Your task to perform on an android device: Add "razer deathadder" to the cart on bestbuy.com, then select checkout. Image 0: 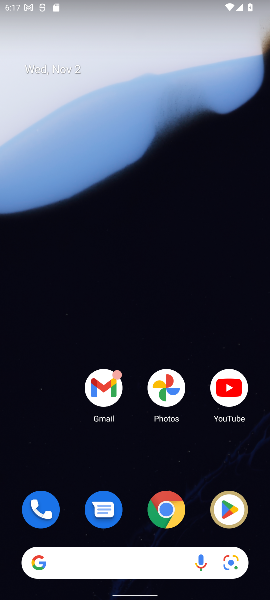
Step 0: click (164, 253)
Your task to perform on an android device: Add "razer deathadder" to the cart on bestbuy.com, then select checkout. Image 1: 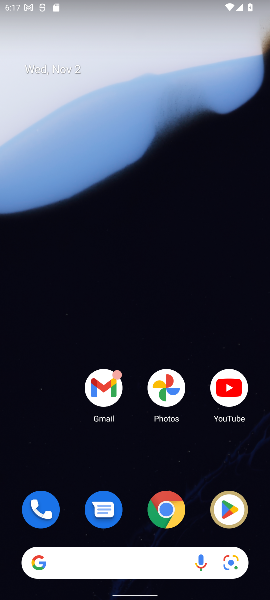
Step 1: click (123, 550)
Your task to perform on an android device: Add "razer deathadder" to the cart on bestbuy.com, then select checkout. Image 2: 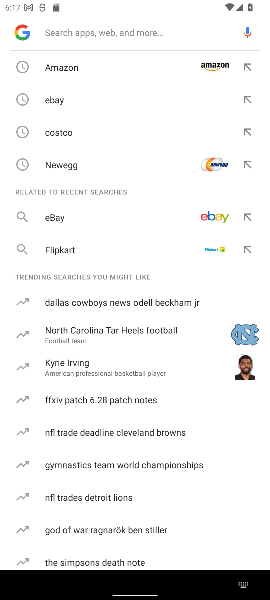
Step 2: type "bestbuy"
Your task to perform on an android device: Add "razer deathadder" to the cart on bestbuy.com, then select checkout. Image 3: 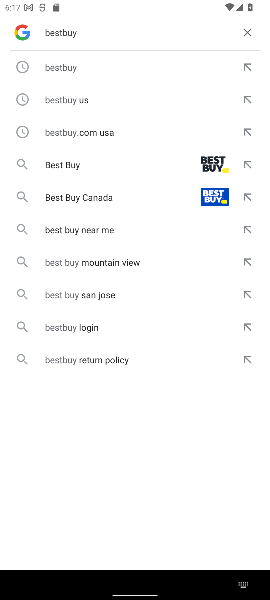
Step 3: click (63, 68)
Your task to perform on an android device: Add "razer deathadder" to the cart on bestbuy.com, then select checkout. Image 4: 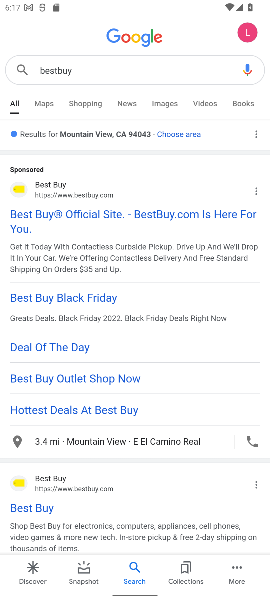
Step 4: click (30, 505)
Your task to perform on an android device: Add "razer deathadder" to the cart on bestbuy.com, then select checkout. Image 5: 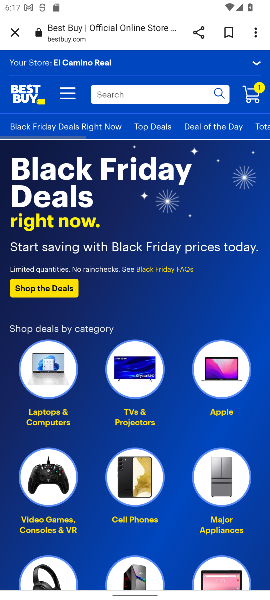
Step 5: click (113, 93)
Your task to perform on an android device: Add "razer deathadder" to the cart on bestbuy.com, then select checkout. Image 6: 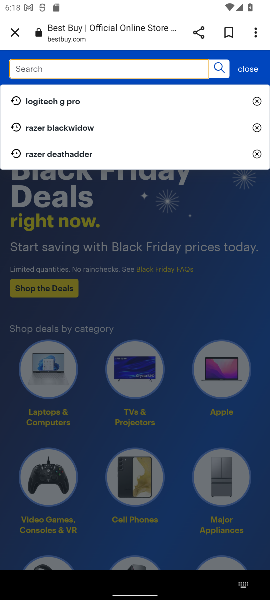
Step 6: type "razer deathadder"
Your task to perform on an android device: Add "razer deathadder" to the cart on bestbuy.com, then select checkout. Image 7: 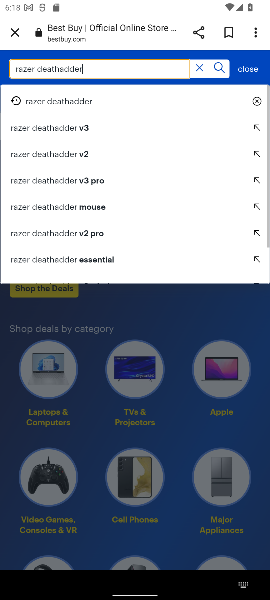
Step 7: click (220, 66)
Your task to perform on an android device: Add "razer deathadder" to the cart on bestbuy.com, then select checkout. Image 8: 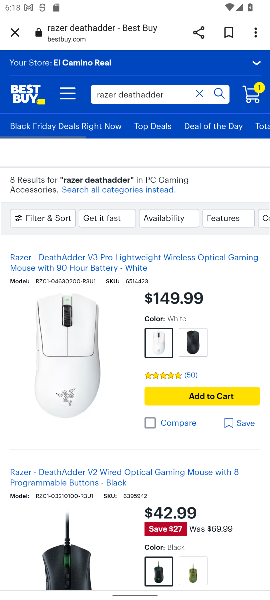
Step 8: drag from (211, 456) to (220, 281)
Your task to perform on an android device: Add "razer deathadder" to the cart on bestbuy.com, then select checkout. Image 9: 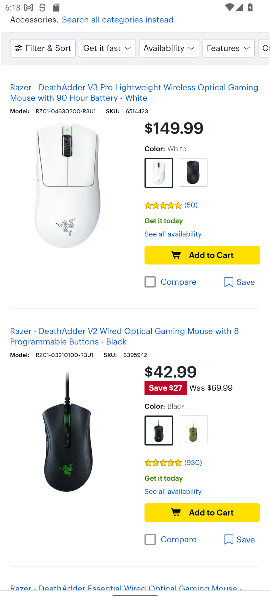
Step 9: click (204, 511)
Your task to perform on an android device: Add "razer deathadder" to the cart on bestbuy.com, then select checkout. Image 10: 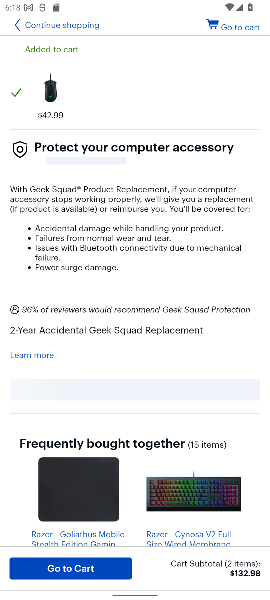
Step 10: click (70, 572)
Your task to perform on an android device: Add "razer deathadder" to the cart on bestbuy.com, then select checkout. Image 11: 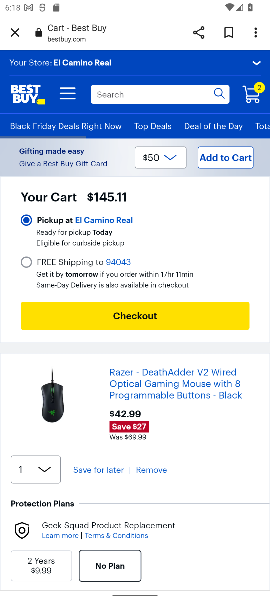
Step 11: click (120, 313)
Your task to perform on an android device: Add "razer deathadder" to the cart on bestbuy.com, then select checkout. Image 12: 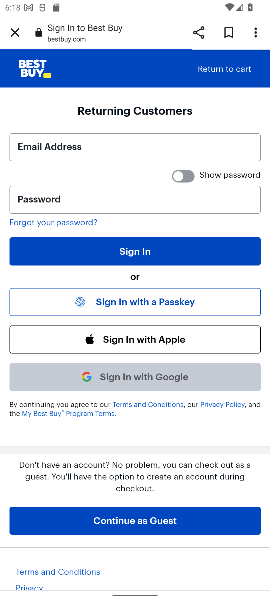
Step 12: task complete